Your task to perform on an android device: Open network settings Image 0: 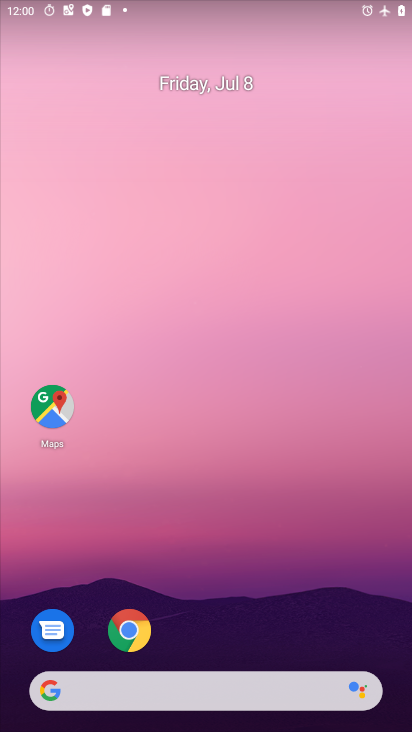
Step 0: drag from (202, 612) to (209, 92)
Your task to perform on an android device: Open network settings Image 1: 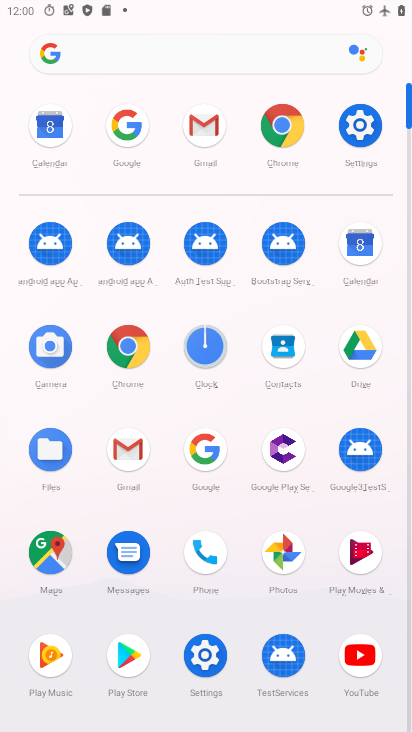
Step 1: click (338, 121)
Your task to perform on an android device: Open network settings Image 2: 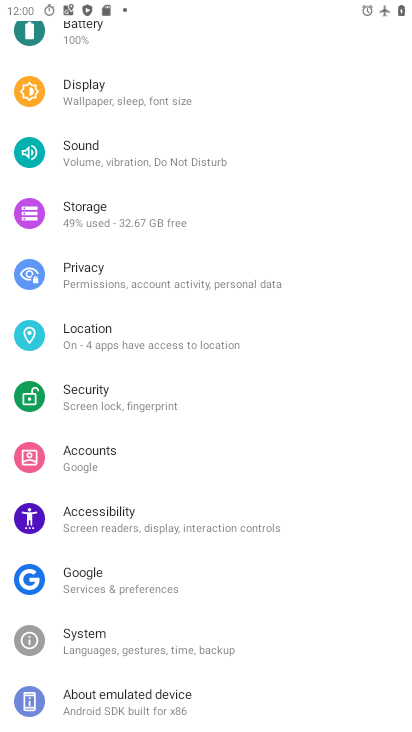
Step 2: drag from (173, 174) to (201, 465)
Your task to perform on an android device: Open network settings Image 3: 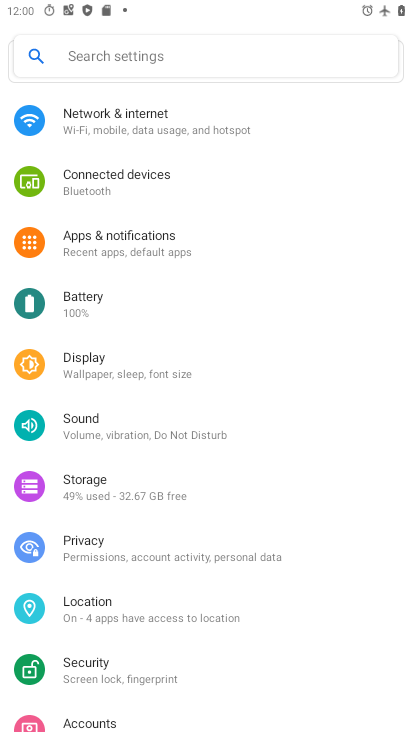
Step 3: click (161, 136)
Your task to perform on an android device: Open network settings Image 4: 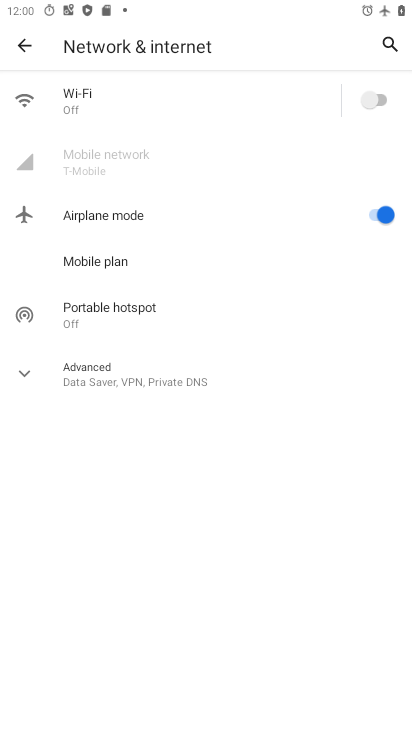
Step 4: task complete